Your task to perform on an android device: Find coffee shops on Maps Image 0: 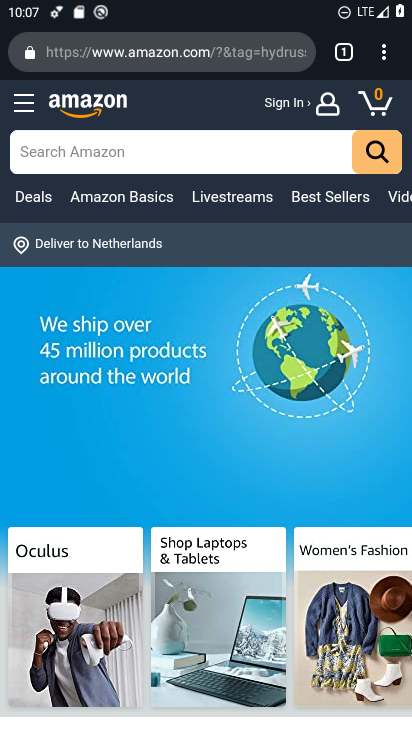
Step 0: press back button
Your task to perform on an android device: Find coffee shops on Maps Image 1: 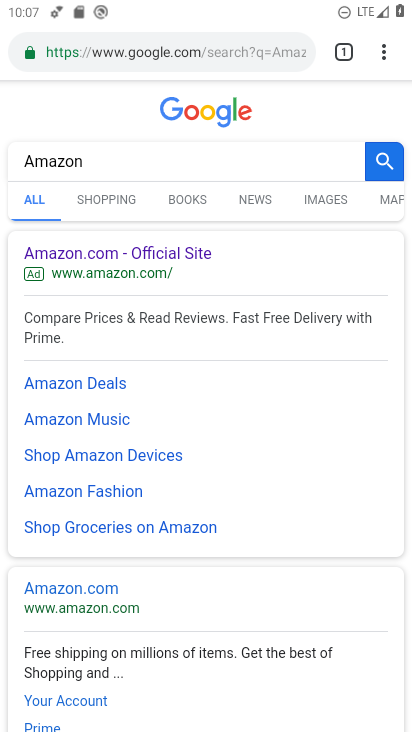
Step 1: press back button
Your task to perform on an android device: Find coffee shops on Maps Image 2: 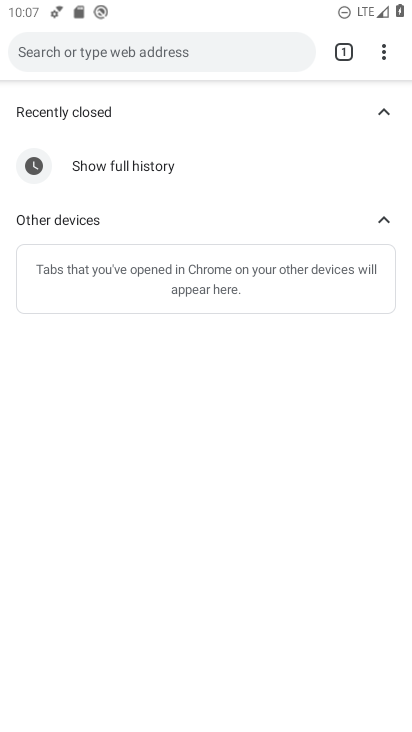
Step 2: press back button
Your task to perform on an android device: Find coffee shops on Maps Image 3: 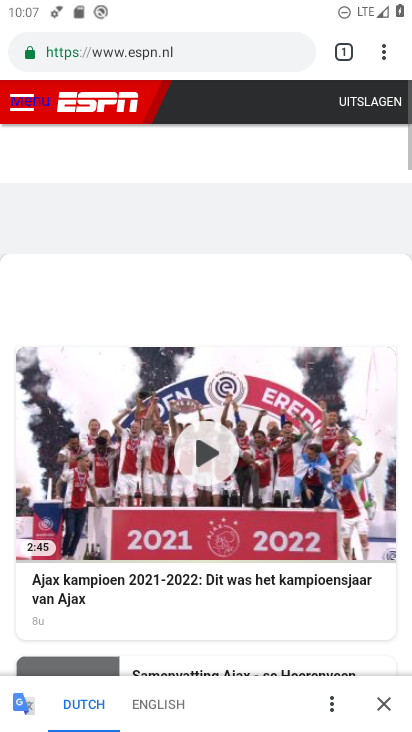
Step 3: press back button
Your task to perform on an android device: Find coffee shops on Maps Image 4: 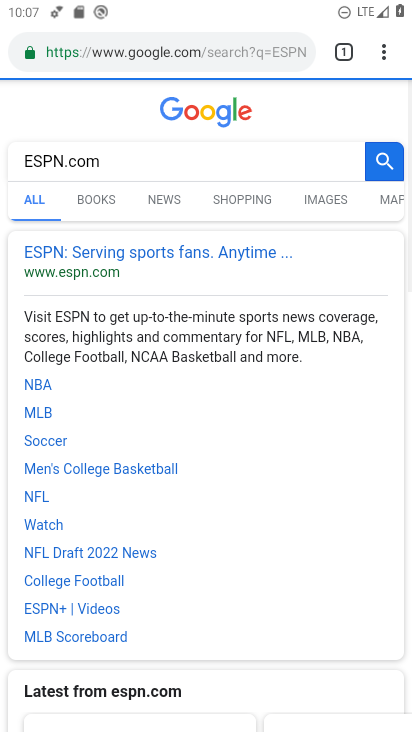
Step 4: press back button
Your task to perform on an android device: Find coffee shops on Maps Image 5: 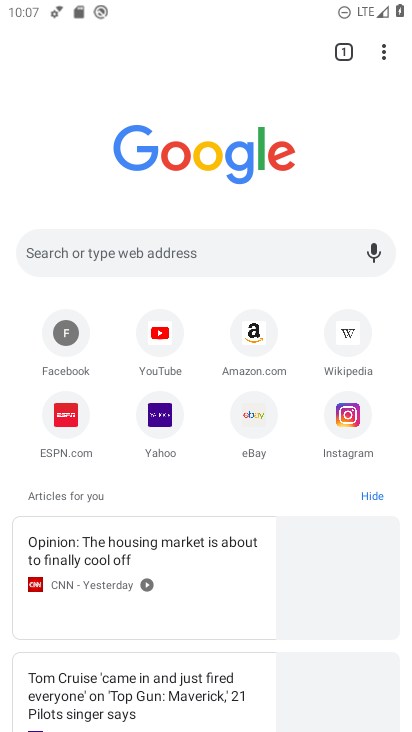
Step 5: press back button
Your task to perform on an android device: Find coffee shops on Maps Image 6: 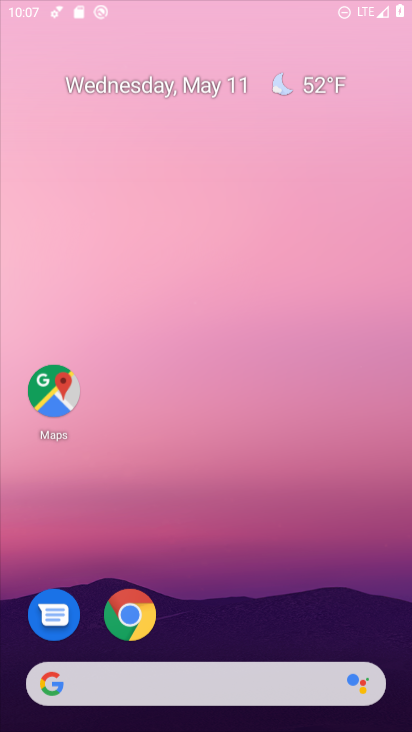
Step 6: press back button
Your task to perform on an android device: Find coffee shops on Maps Image 7: 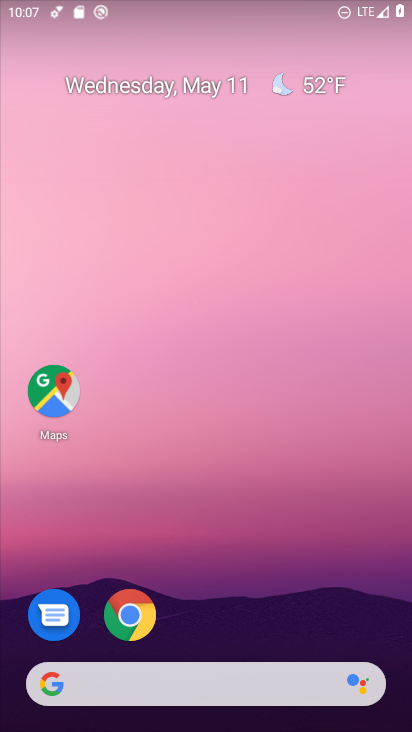
Step 7: click (54, 392)
Your task to perform on an android device: Find coffee shops on Maps Image 8: 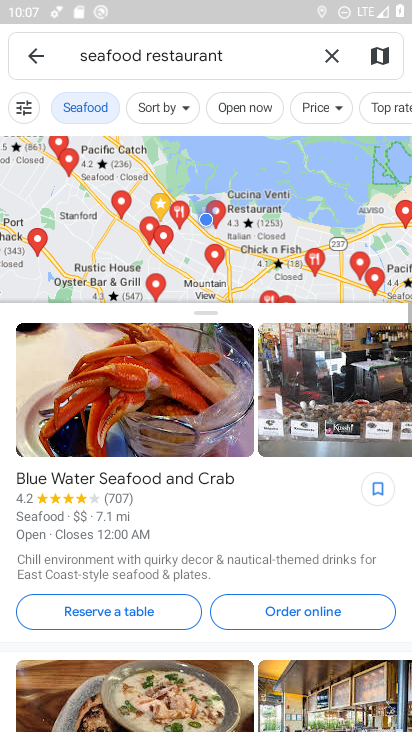
Step 8: click (331, 58)
Your task to perform on an android device: Find coffee shops on Maps Image 9: 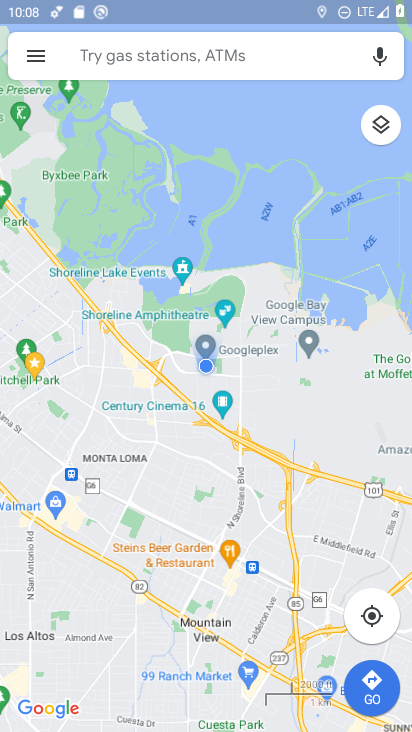
Step 9: click (212, 58)
Your task to perform on an android device: Find coffee shops on Maps Image 10: 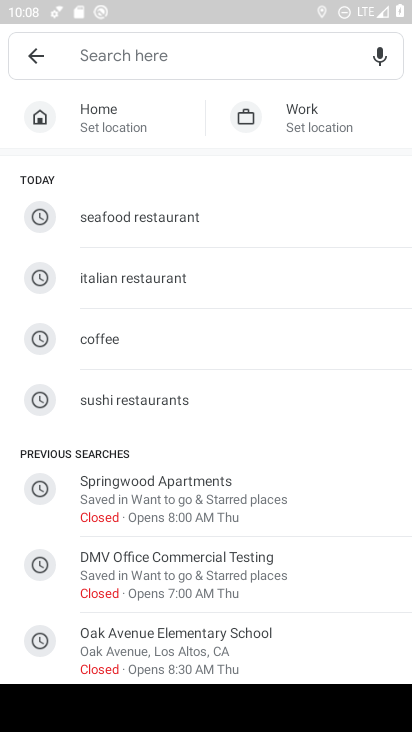
Step 10: type "coffee shops"
Your task to perform on an android device: Find coffee shops on Maps Image 11: 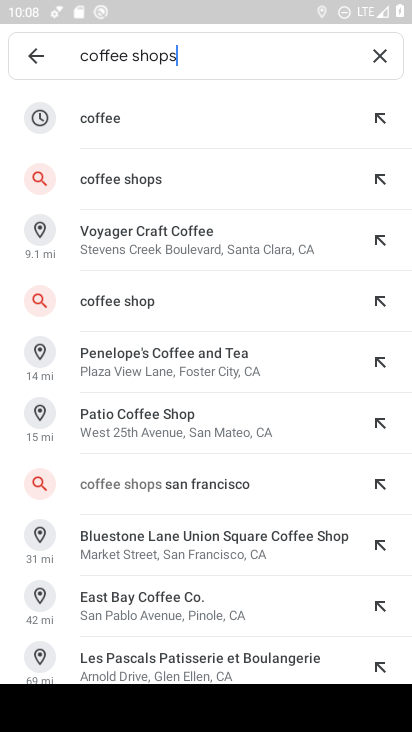
Step 11: click (150, 182)
Your task to perform on an android device: Find coffee shops on Maps Image 12: 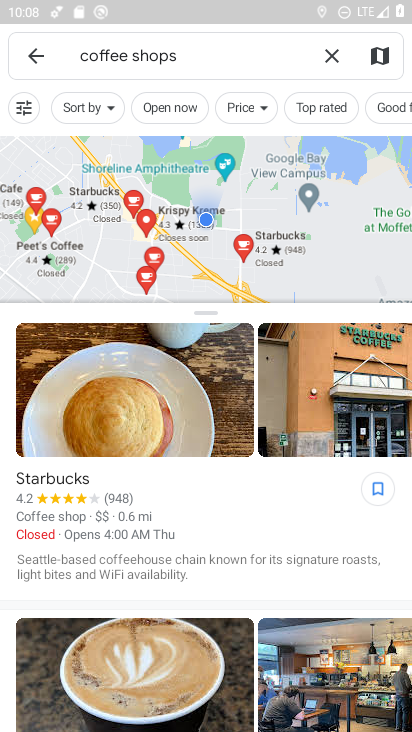
Step 12: task complete